Your task to perform on an android device: Go to wifi settings Image 0: 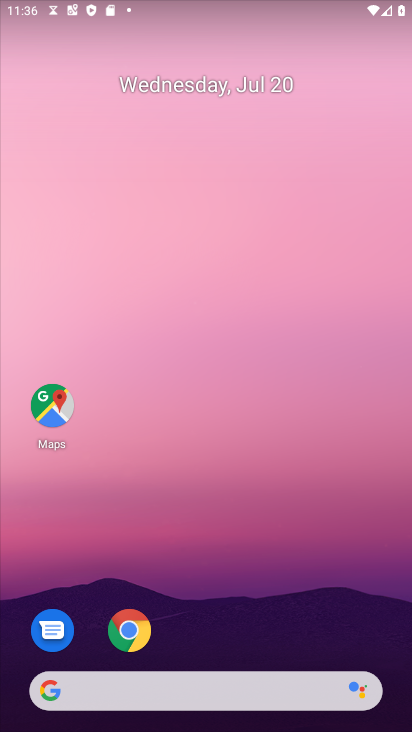
Step 0: drag from (24, 691) to (206, 189)
Your task to perform on an android device: Go to wifi settings Image 1: 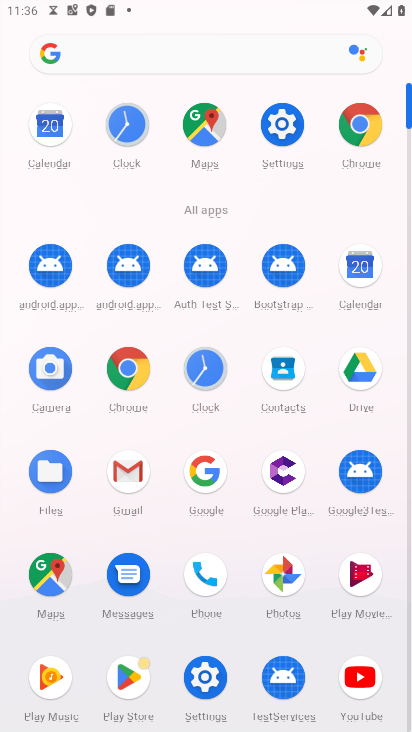
Step 1: click (202, 684)
Your task to perform on an android device: Go to wifi settings Image 2: 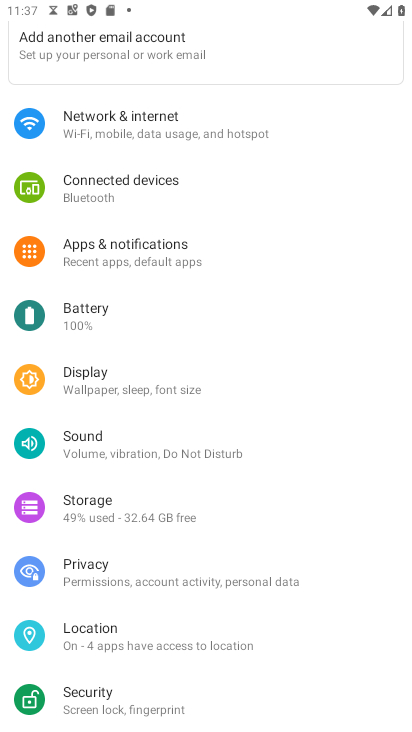
Step 2: click (139, 130)
Your task to perform on an android device: Go to wifi settings Image 3: 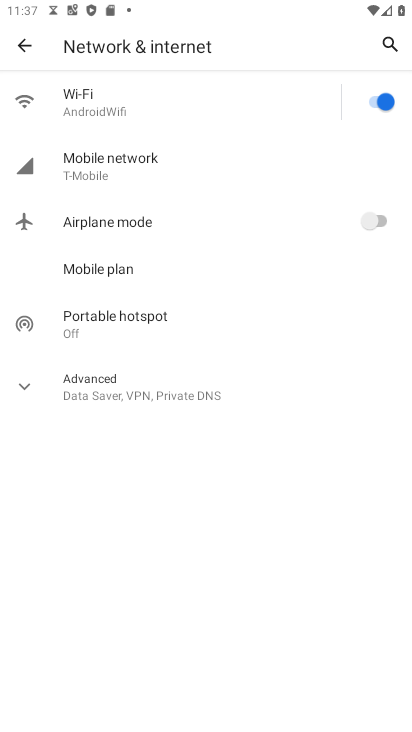
Step 3: click (70, 104)
Your task to perform on an android device: Go to wifi settings Image 4: 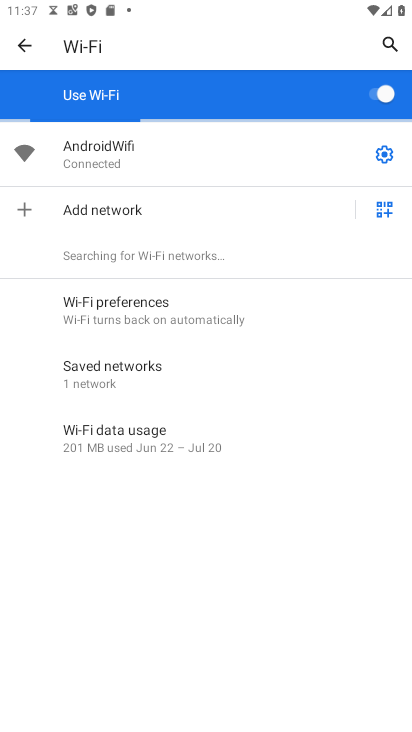
Step 4: task complete